Your task to perform on an android device: delete browsing data in the chrome app Image 0: 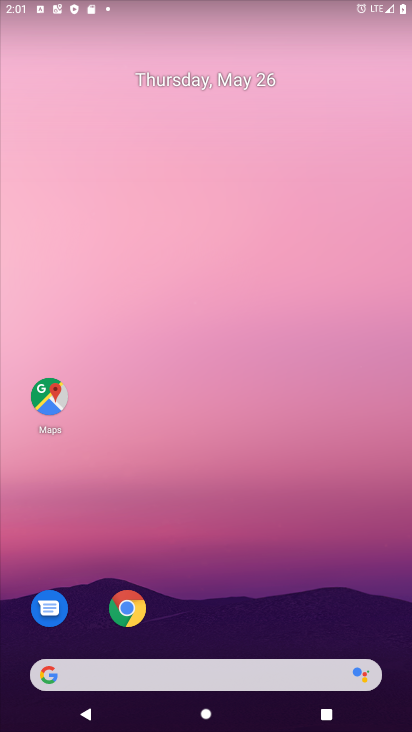
Step 0: click (127, 605)
Your task to perform on an android device: delete browsing data in the chrome app Image 1: 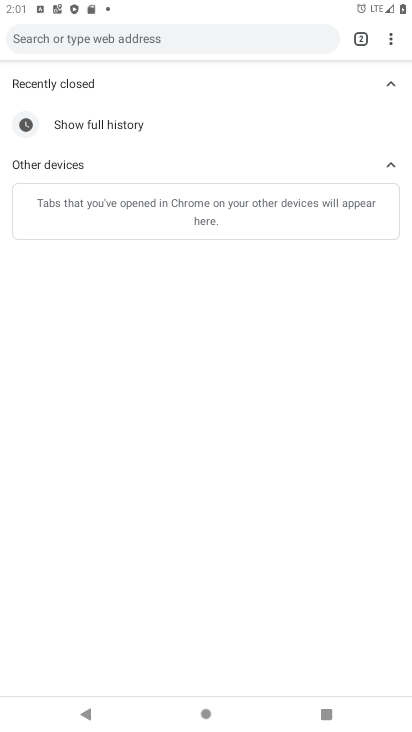
Step 1: click (390, 49)
Your task to perform on an android device: delete browsing data in the chrome app Image 2: 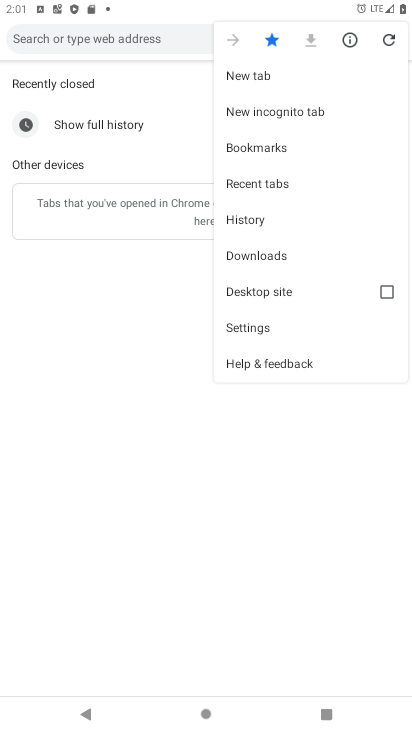
Step 2: click (257, 220)
Your task to perform on an android device: delete browsing data in the chrome app Image 3: 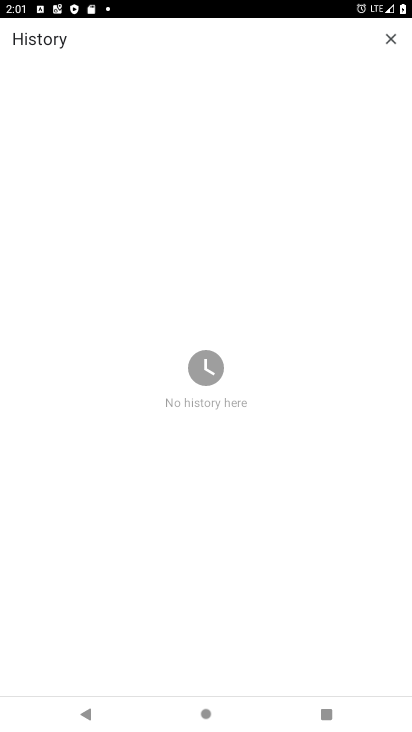
Step 3: task complete